Your task to perform on an android device: Open location settings Image 0: 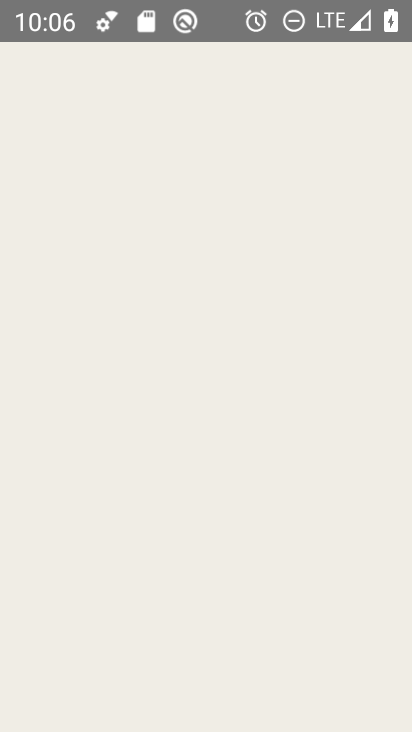
Step 0: click (257, 530)
Your task to perform on an android device: Open location settings Image 1: 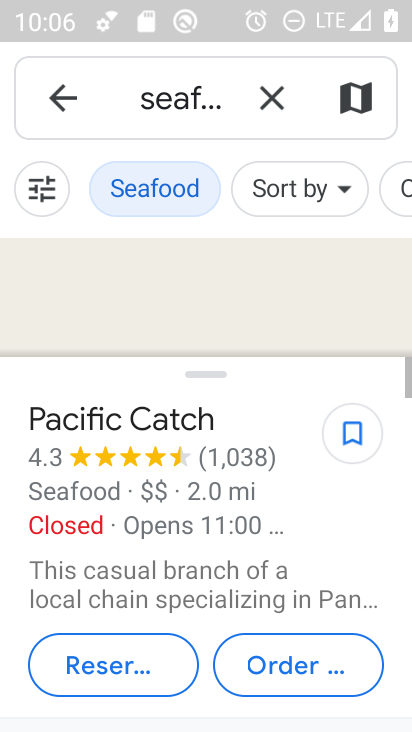
Step 1: press home button
Your task to perform on an android device: Open location settings Image 2: 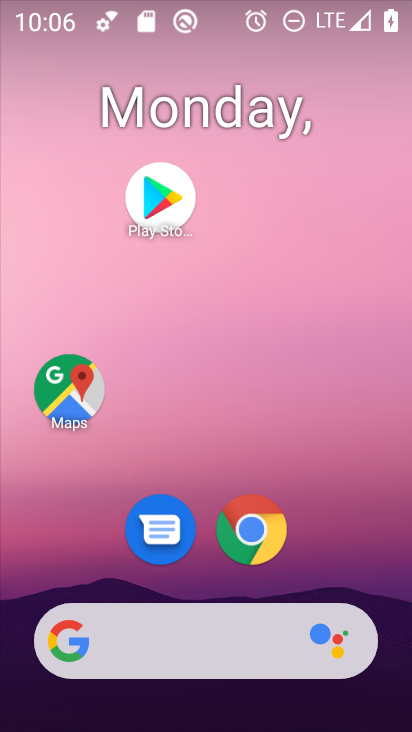
Step 2: drag from (319, 472) to (229, 90)
Your task to perform on an android device: Open location settings Image 3: 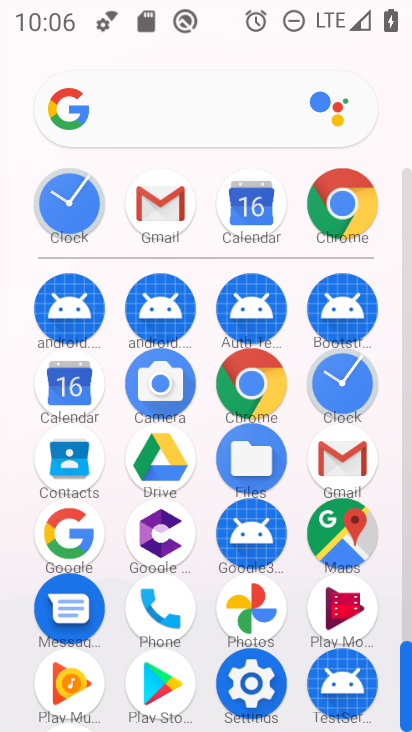
Step 3: click (249, 670)
Your task to perform on an android device: Open location settings Image 4: 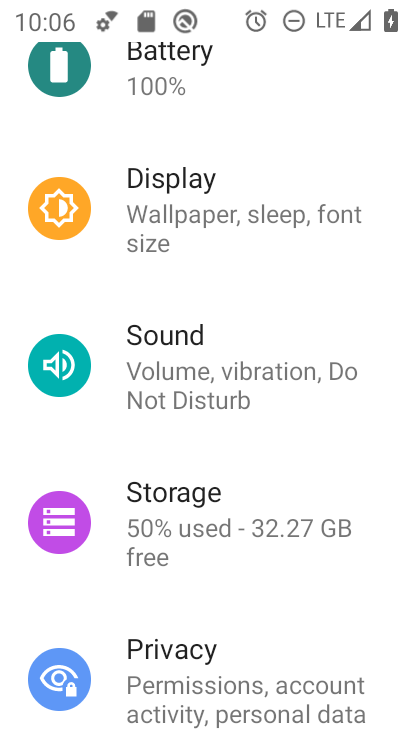
Step 4: drag from (230, 581) to (187, 257)
Your task to perform on an android device: Open location settings Image 5: 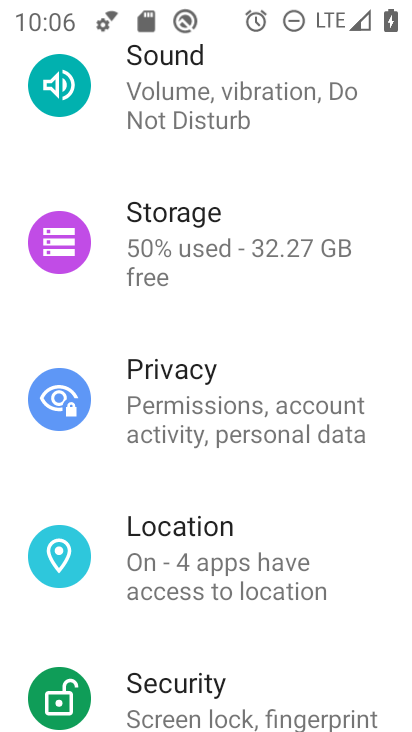
Step 5: click (185, 522)
Your task to perform on an android device: Open location settings Image 6: 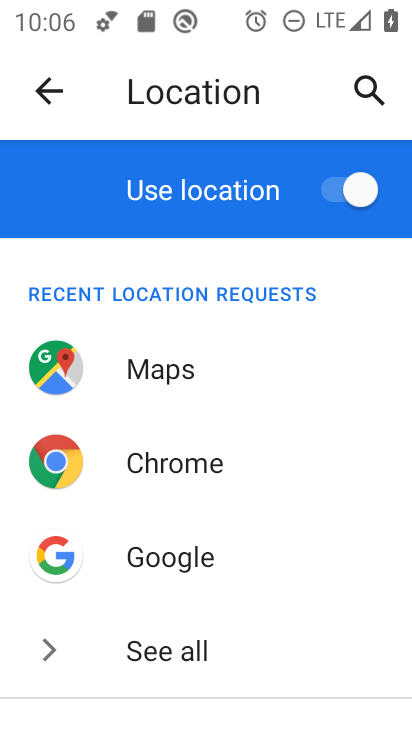
Step 6: task complete